Your task to perform on an android device: toggle notifications settings in the gmail app Image 0: 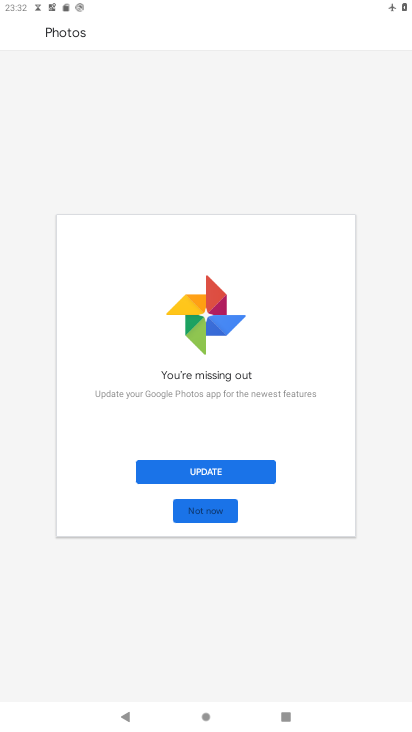
Step 0: press home button
Your task to perform on an android device: toggle notifications settings in the gmail app Image 1: 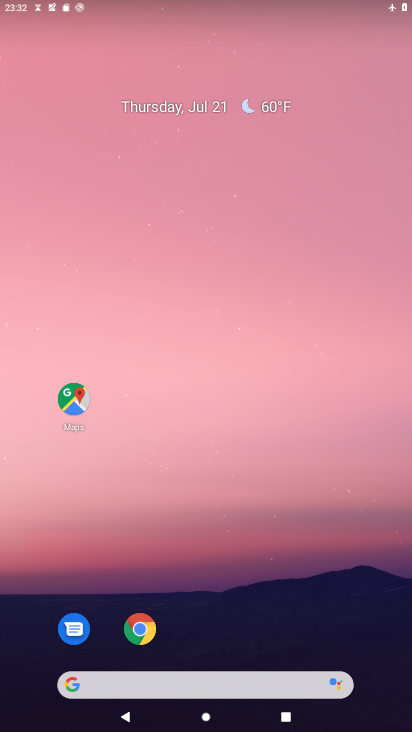
Step 1: drag from (175, 539) to (224, 167)
Your task to perform on an android device: toggle notifications settings in the gmail app Image 2: 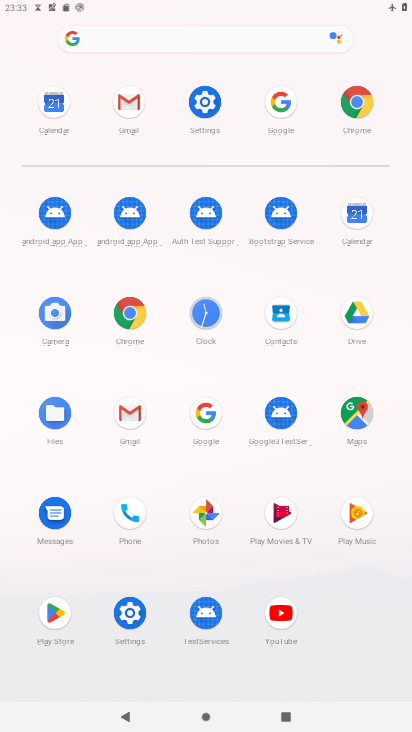
Step 2: click (123, 95)
Your task to perform on an android device: toggle notifications settings in the gmail app Image 3: 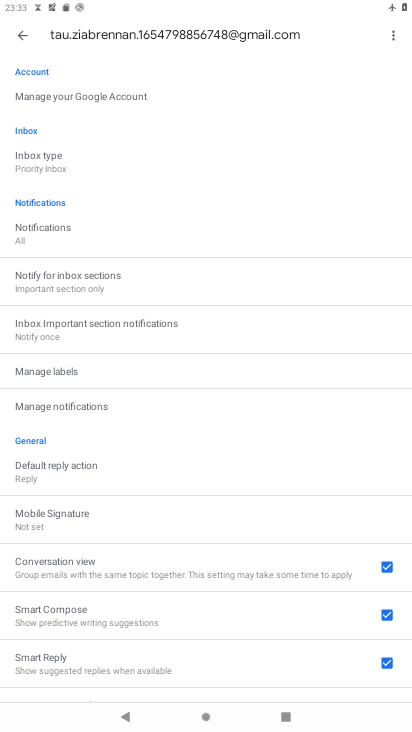
Step 3: click (67, 227)
Your task to perform on an android device: toggle notifications settings in the gmail app Image 4: 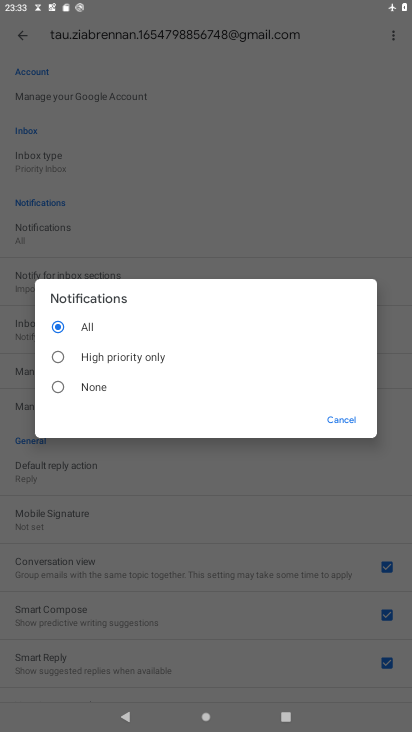
Step 4: click (87, 388)
Your task to perform on an android device: toggle notifications settings in the gmail app Image 5: 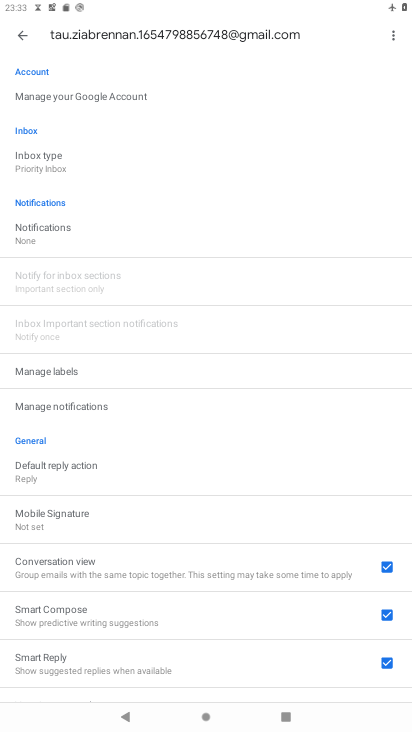
Step 5: task complete